Your task to perform on an android device: change keyboard looks Image 0: 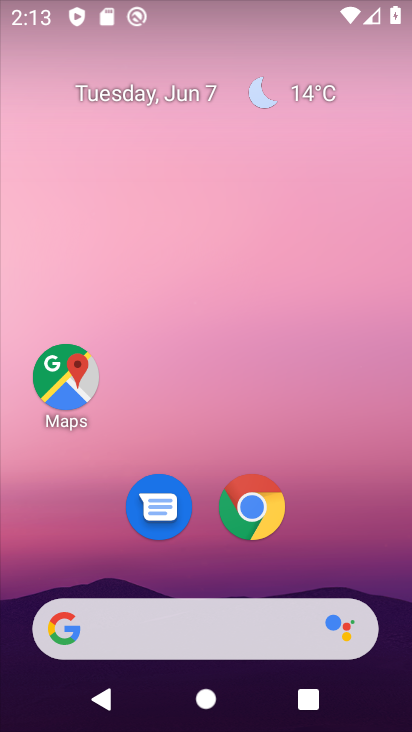
Step 0: drag from (345, 491) to (299, 78)
Your task to perform on an android device: change keyboard looks Image 1: 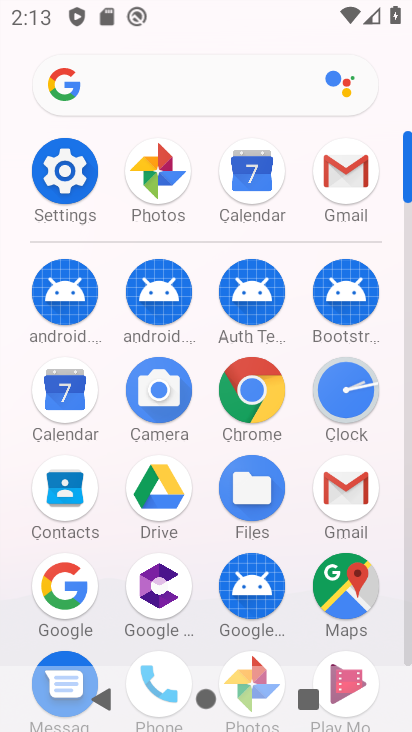
Step 1: click (63, 168)
Your task to perform on an android device: change keyboard looks Image 2: 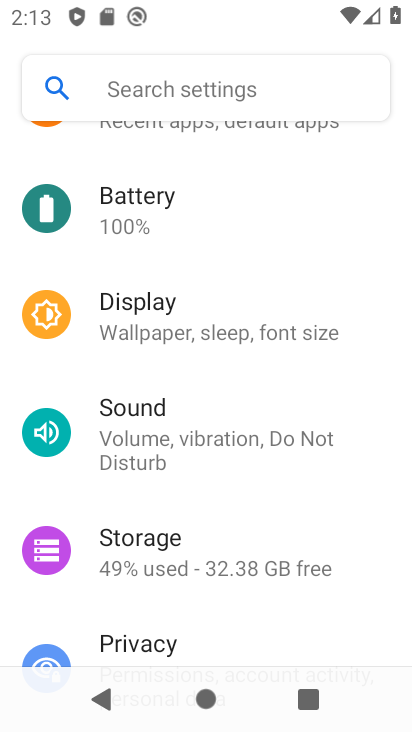
Step 2: drag from (224, 562) to (279, 88)
Your task to perform on an android device: change keyboard looks Image 3: 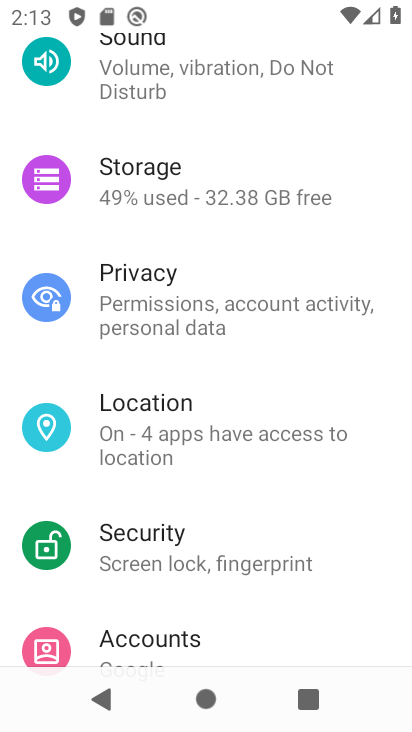
Step 3: drag from (229, 569) to (261, 140)
Your task to perform on an android device: change keyboard looks Image 4: 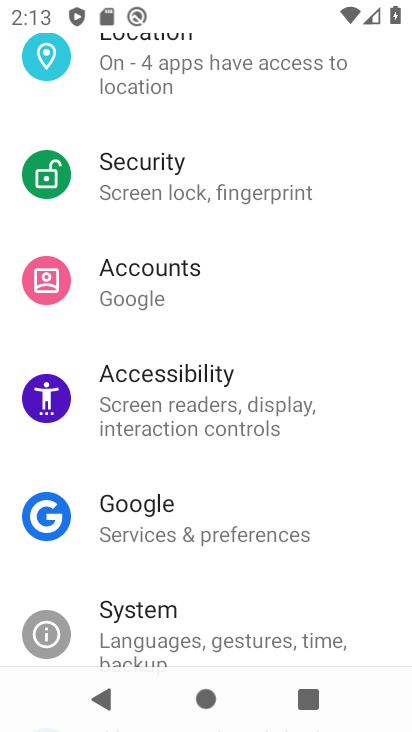
Step 4: drag from (226, 510) to (264, 224)
Your task to perform on an android device: change keyboard looks Image 5: 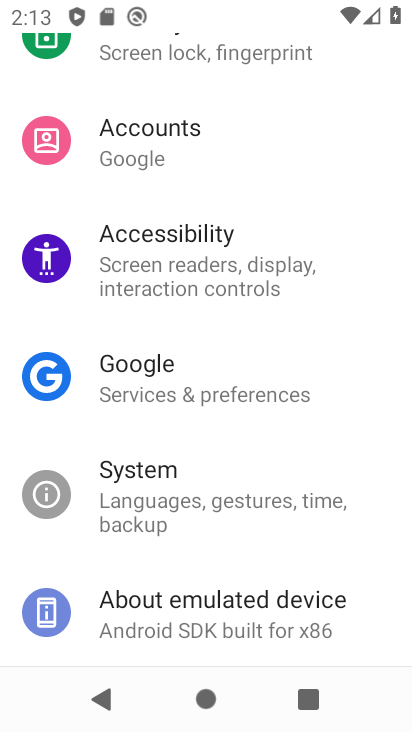
Step 5: click (177, 533)
Your task to perform on an android device: change keyboard looks Image 6: 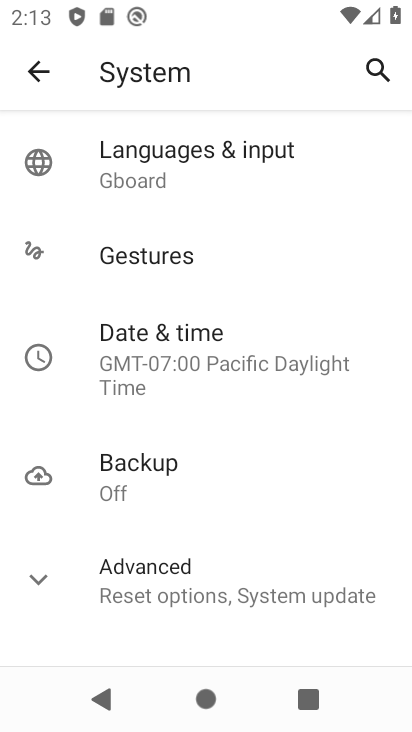
Step 6: click (143, 154)
Your task to perform on an android device: change keyboard looks Image 7: 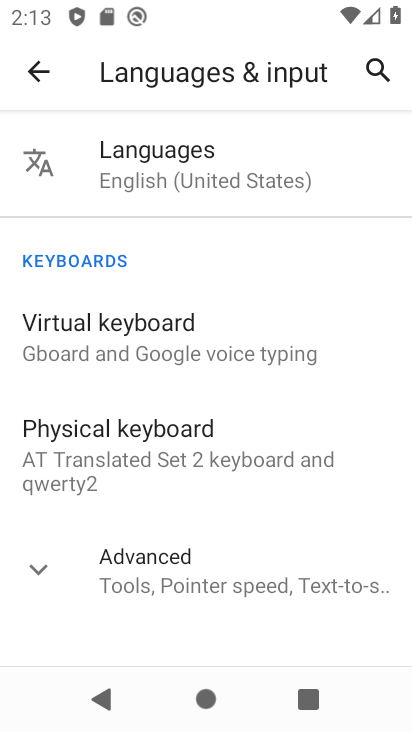
Step 7: click (170, 349)
Your task to perform on an android device: change keyboard looks Image 8: 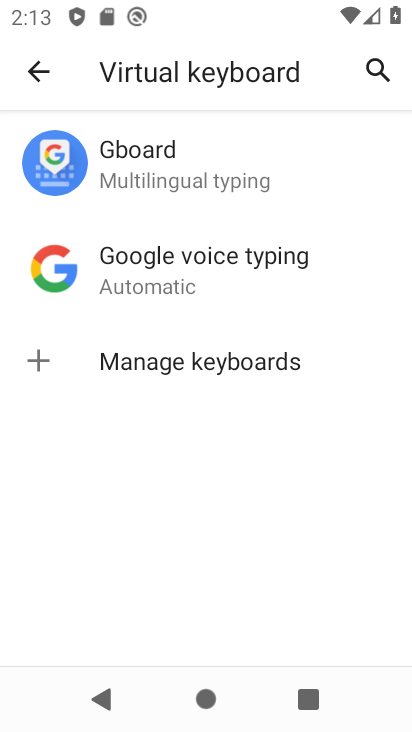
Step 8: click (214, 193)
Your task to perform on an android device: change keyboard looks Image 9: 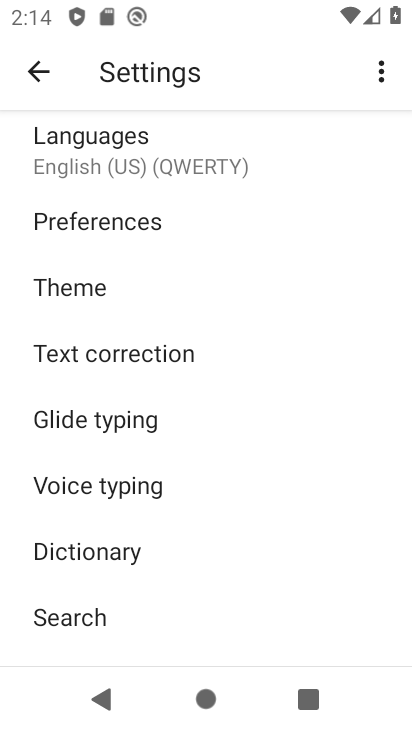
Step 9: click (115, 286)
Your task to perform on an android device: change keyboard looks Image 10: 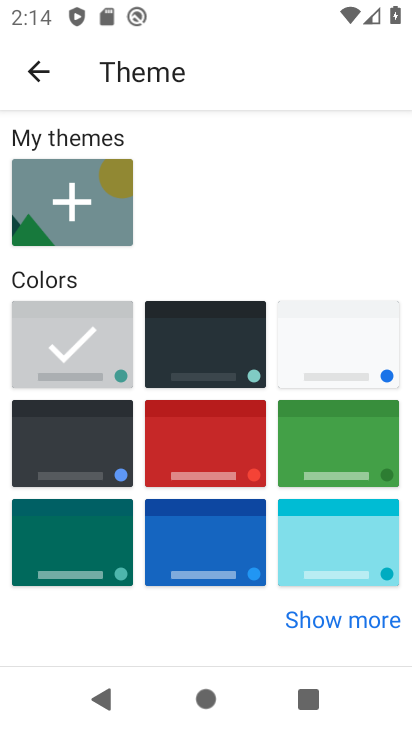
Step 10: click (352, 333)
Your task to perform on an android device: change keyboard looks Image 11: 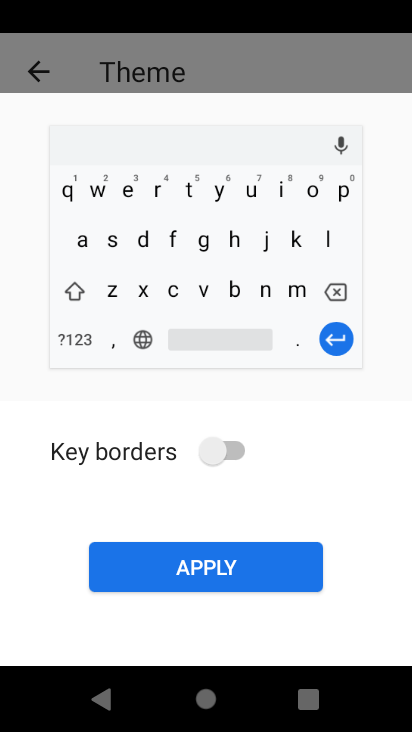
Step 11: click (242, 572)
Your task to perform on an android device: change keyboard looks Image 12: 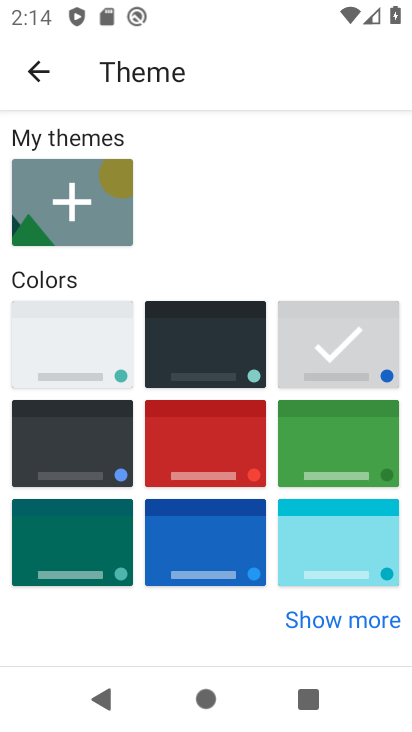
Step 12: task complete